Your task to perform on an android device: Is it going to rain tomorrow? Image 0: 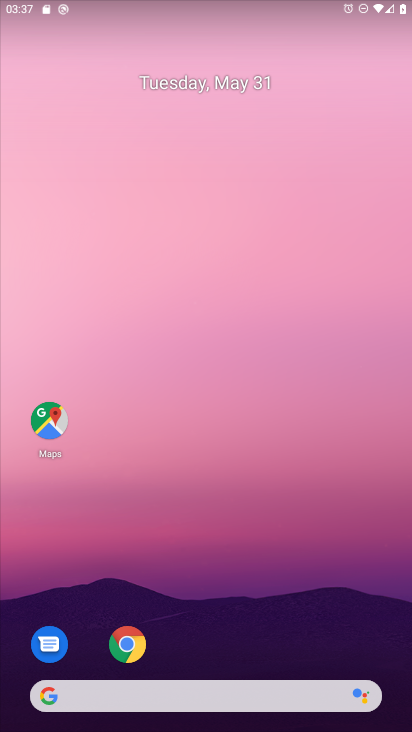
Step 0: drag from (315, 598) to (306, 108)
Your task to perform on an android device: Is it going to rain tomorrow? Image 1: 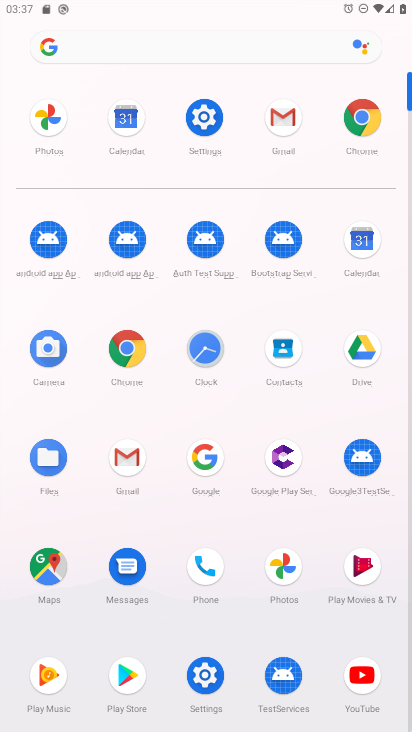
Step 1: press home button
Your task to perform on an android device: Is it going to rain tomorrow? Image 2: 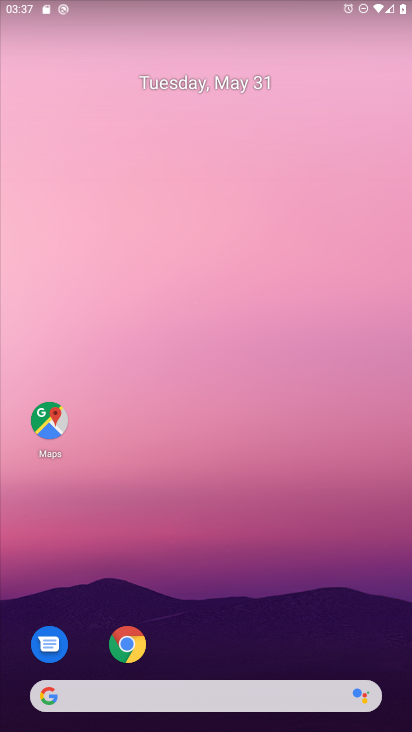
Step 2: drag from (302, 558) to (262, 64)
Your task to perform on an android device: Is it going to rain tomorrow? Image 3: 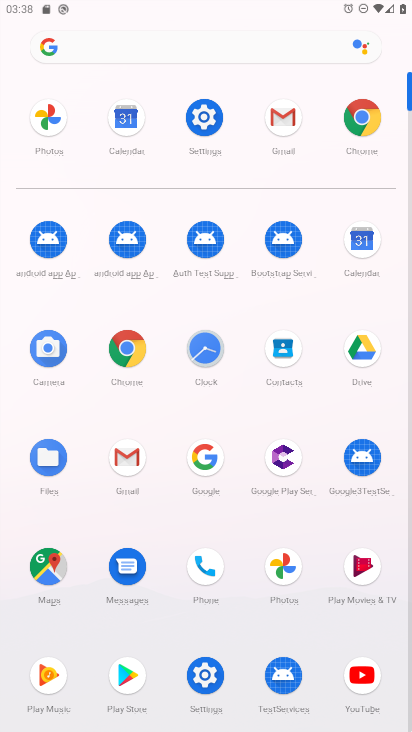
Step 3: click (130, 350)
Your task to perform on an android device: Is it going to rain tomorrow? Image 4: 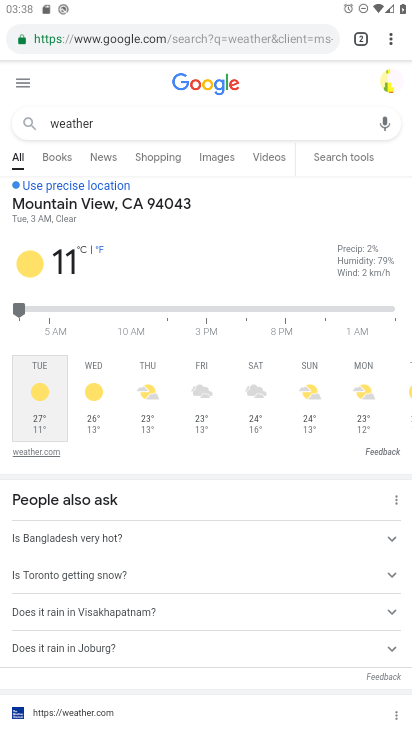
Step 4: click (214, 116)
Your task to perform on an android device: Is it going to rain tomorrow? Image 5: 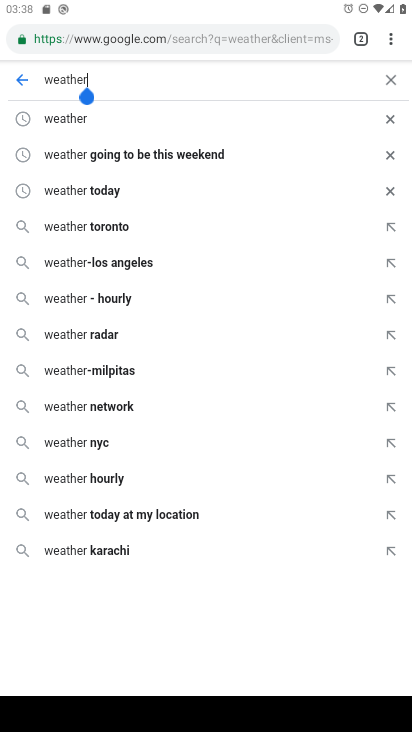
Step 5: click (383, 81)
Your task to perform on an android device: Is it going to rain tomorrow? Image 6: 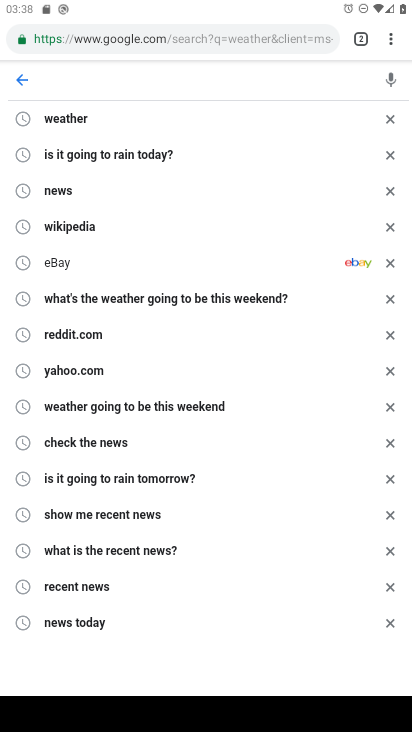
Step 6: click (86, 122)
Your task to perform on an android device: Is it going to rain tomorrow? Image 7: 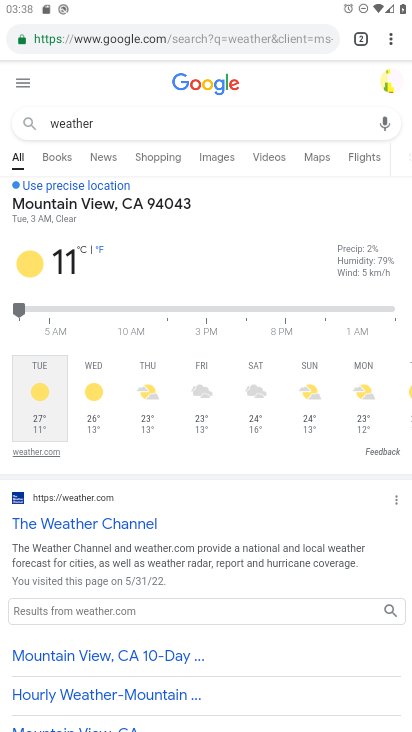
Step 7: click (99, 385)
Your task to perform on an android device: Is it going to rain tomorrow? Image 8: 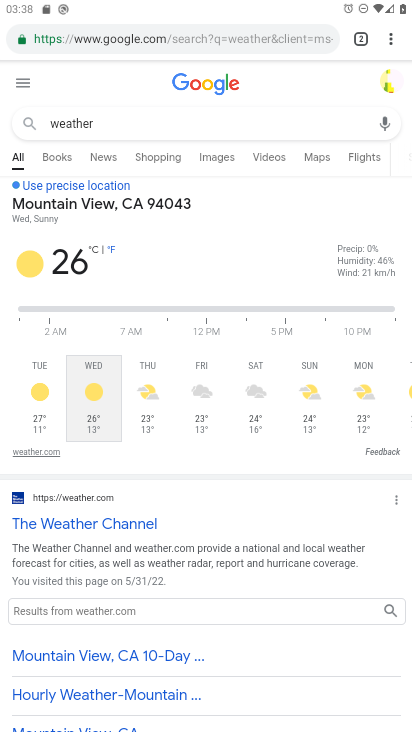
Step 8: task complete